Your task to perform on an android device: turn notification dots on Image 0: 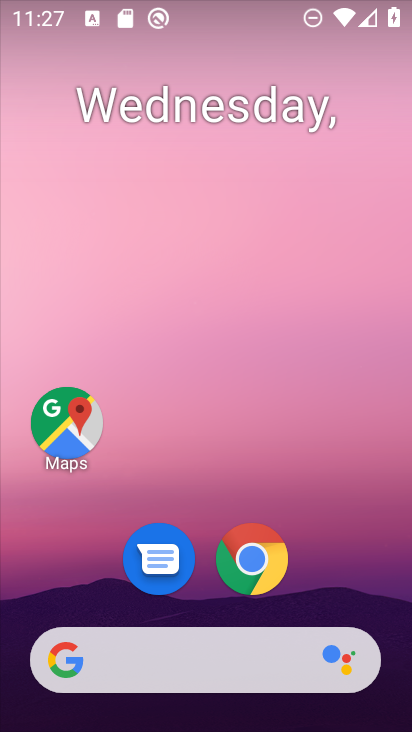
Step 0: drag from (222, 654) to (299, 184)
Your task to perform on an android device: turn notification dots on Image 1: 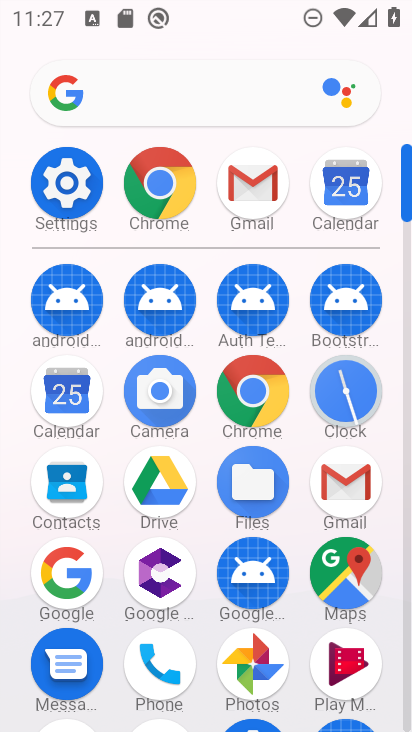
Step 1: click (59, 168)
Your task to perform on an android device: turn notification dots on Image 2: 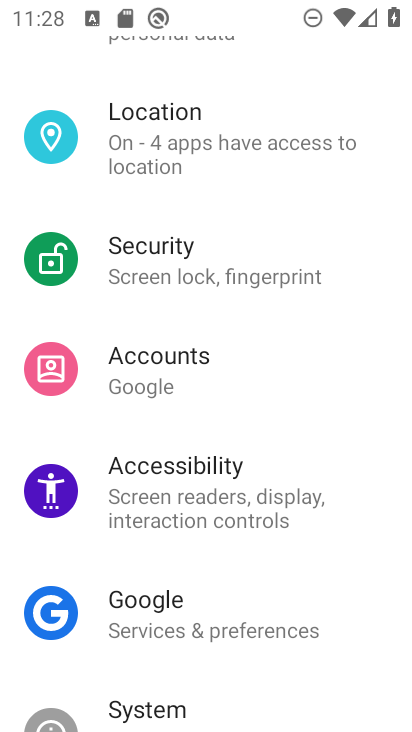
Step 2: drag from (276, 247) to (210, 726)
Your task to perform on an android device: turn notification dots on Image 3: 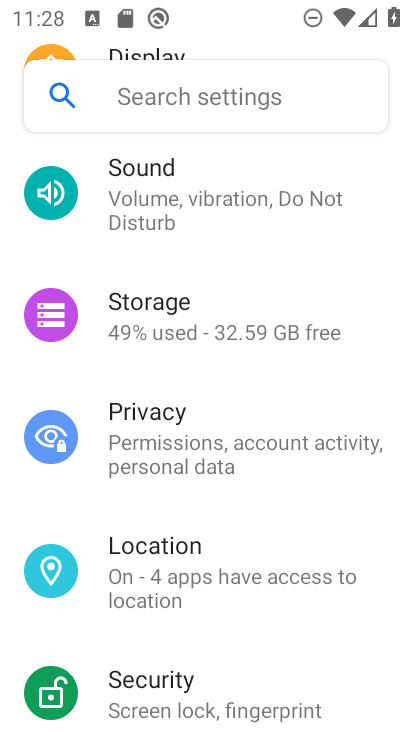
Step 3: drag from (260, 293) to (269, 718)
Your task to perform on an android device: turn notification dots on Image 4: 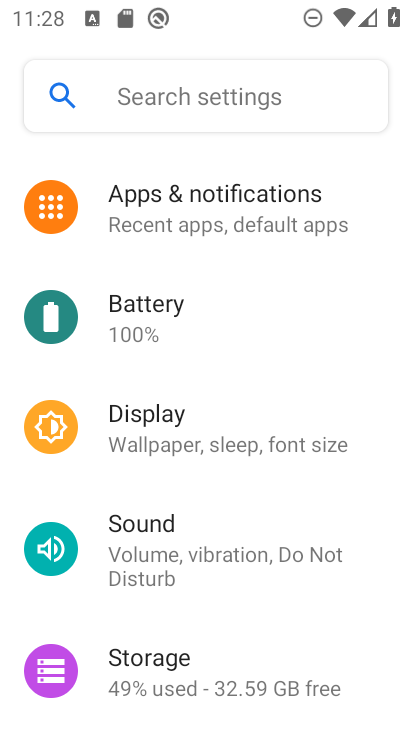
Step 4: click (244, 217)
Your task to perform on an android device: turn notification dots on Image 5: 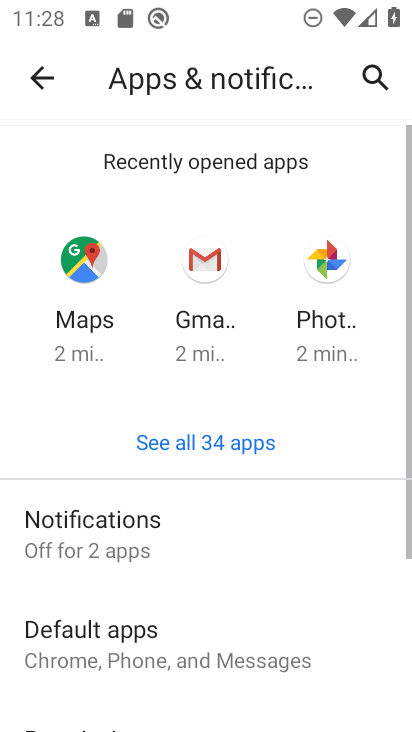
Step 5: click (194, 524)
Your task to perform on an android device: turn notification dots on Image 6: 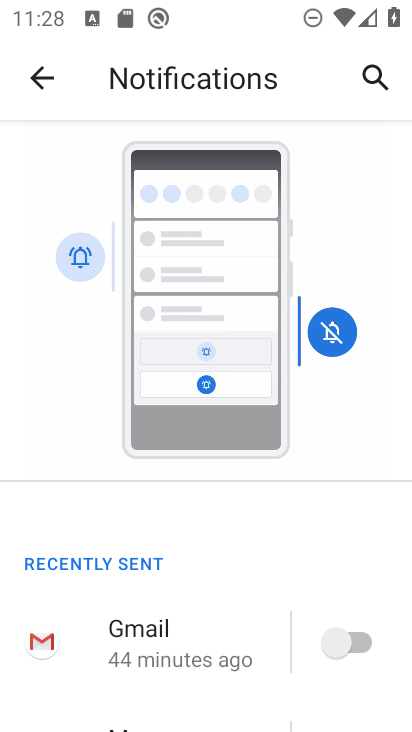
Step 6: drag from (217, 573) to (156, 8)
Your task to perform on an android device: turn notification dots on Image 7: 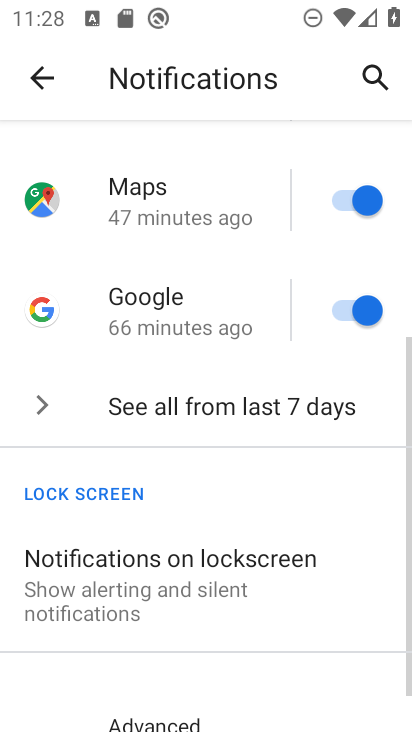
Step 7: drag from (186, 493) to (196, 50)
Your task to perform on an android device: turn notification dots on Image 8: 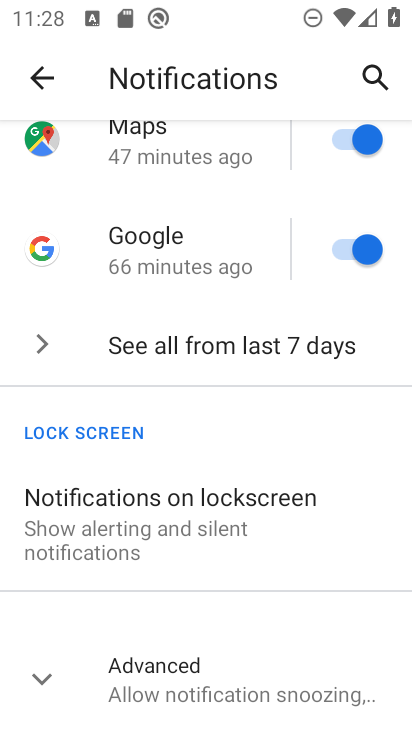
Step 8: click (220, 707)
Your task to perform on an android device: turn notification dots on Image 9: 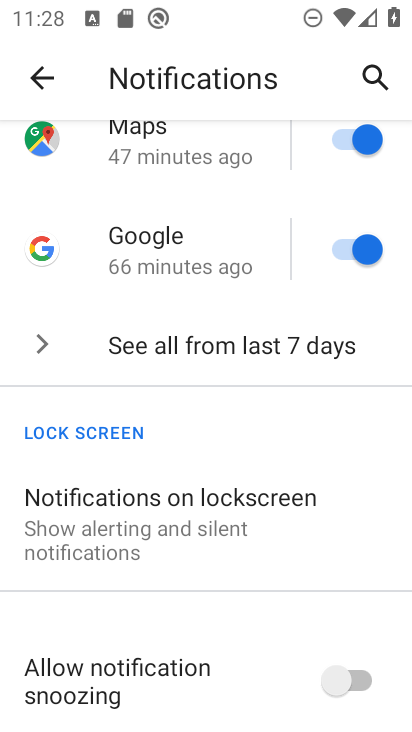
Step 9: task complete